Your task to perform on an android device: Do I have any events tomorrow? Image 0: 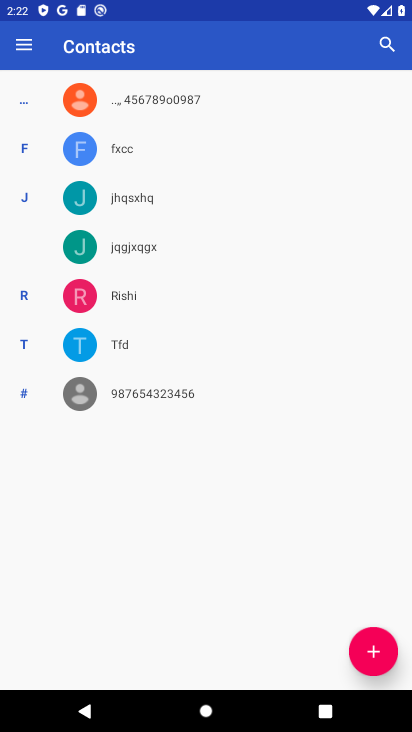
Step 0: press home button
Your task to perform on an android device: Do I have any events tomorrow? Image 1: 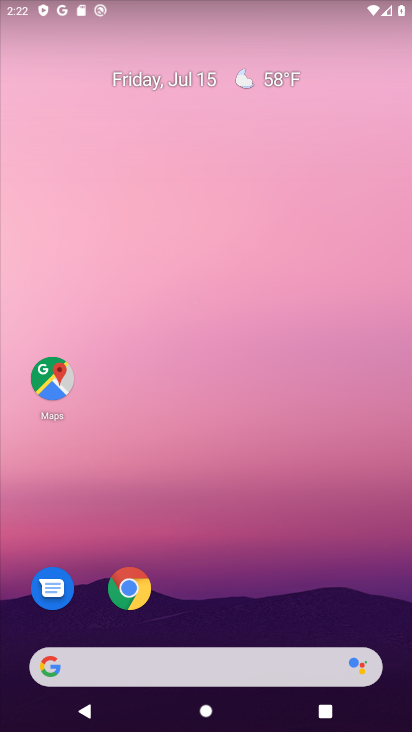
Step 1: drag from (286, 611) to (243, 332)
Your task to perform on an android device: Do I have any events tomorrow? Image 2: 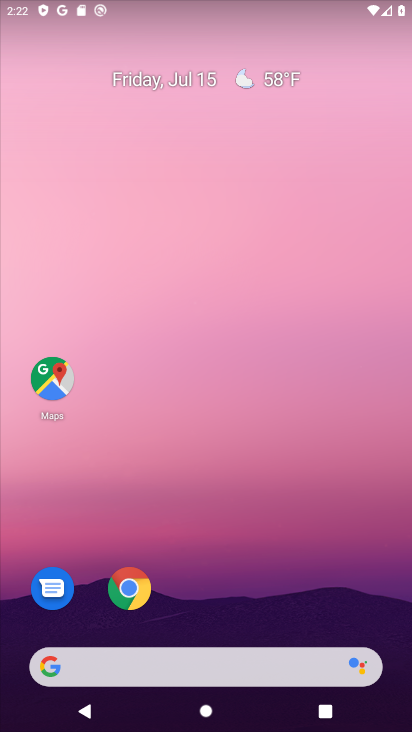
Step 2: drag from (237, 615) to (242, 12)
Your task to perform on an android device: Do I have any events tomorrow? Image 3: 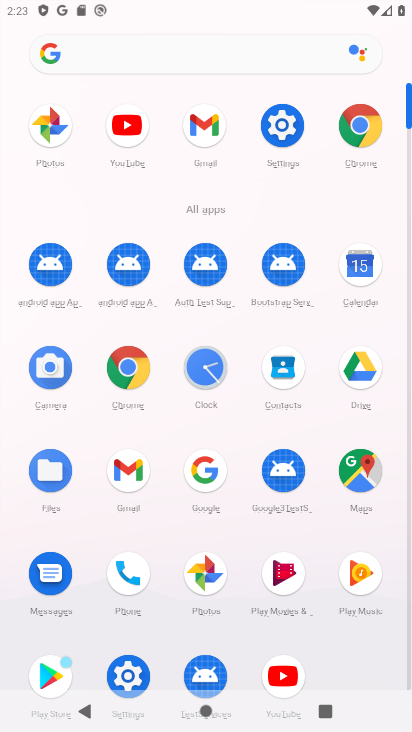
Step 3: click (343, 278)
Your task to perform on an android device: Do I have any events tomorrow? Image 4: 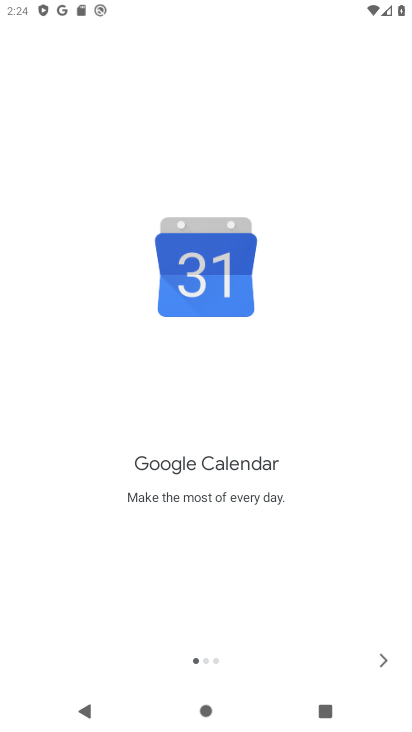
Step 4: click (360, 670)
Your task to perform on an android device: Do I have any events tomorrow? Image 5: 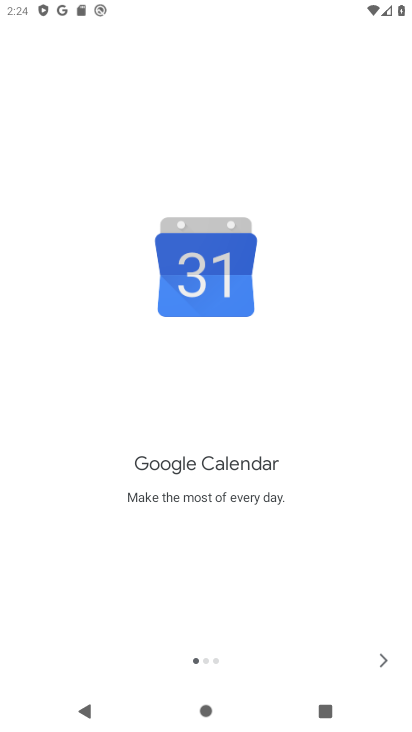
Step 5: click (380, 661)
Your task to perform on an android device: Do I have any events tomorrow? Image 6: 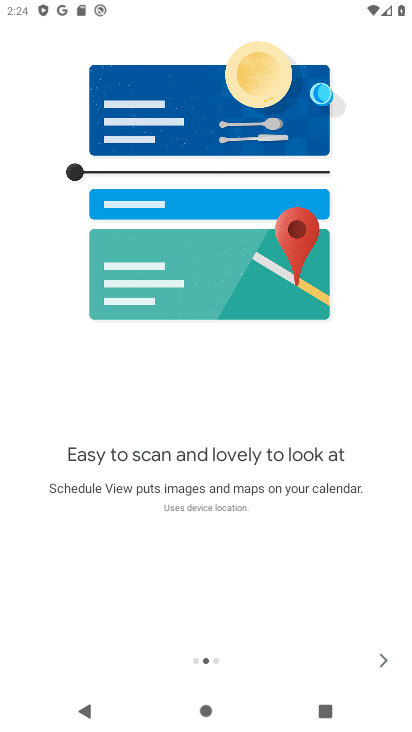
Step 6: click (380, 661)
Your task to perform on an android device: Do I have any events tomorrow? Image 7: 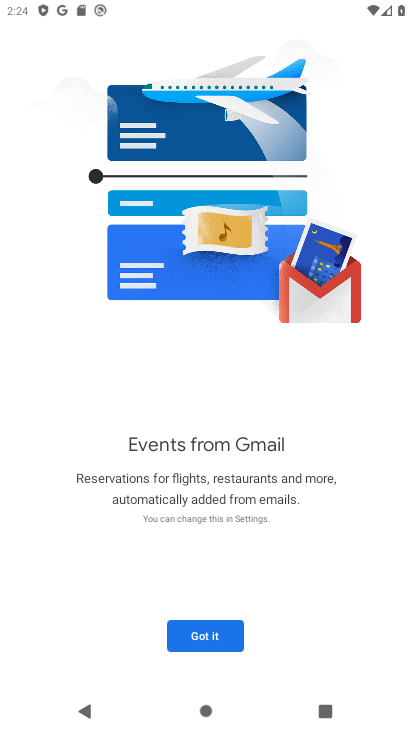
Step 7: click (380, 661)
Your task to perform on an android device: Do I have any events tomorrow? Image 8: 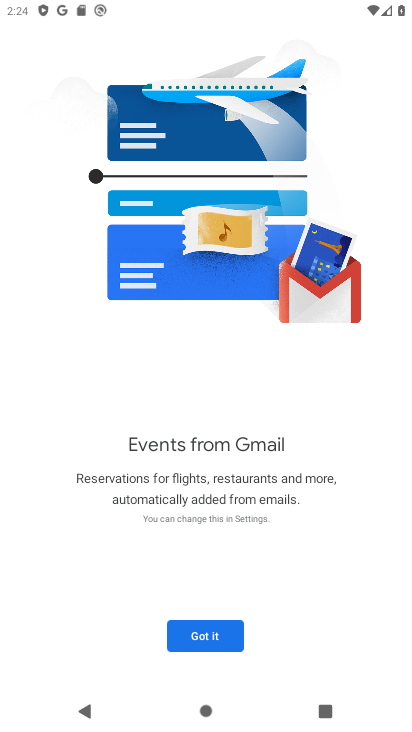
Step 8: click (380, 661)
Your task to perform on an android device: Do I have any events tomorrow? Image 9: 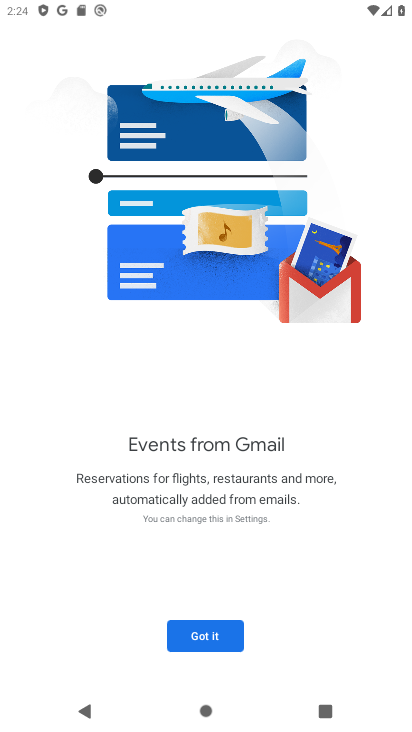
Step 9: click (173, 617)
Your task to perform on an android device: Do I have any events tomorrow? Image 10: 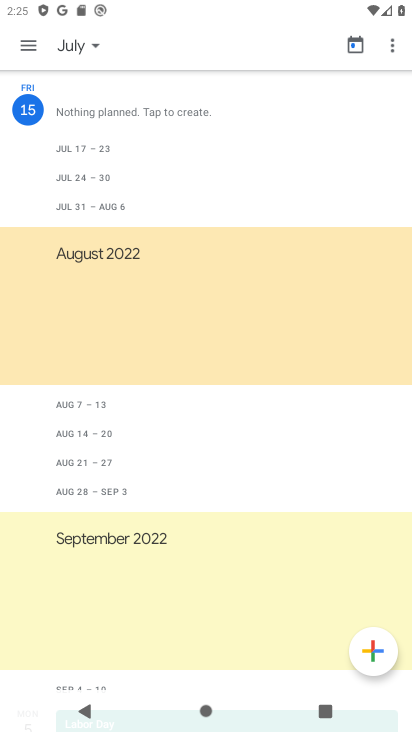
Step 10: task complete